Your task to perform on an android device: Open settings on Google Maps Image 0: 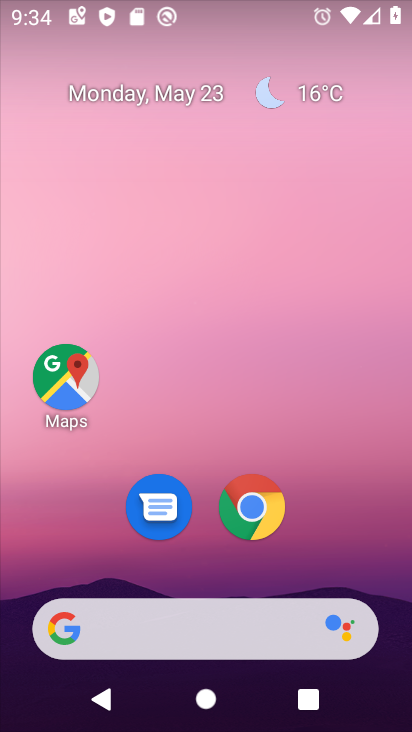
Step 0: click (70, 383)
Your task to perform on an android device: Open settings on Google Maps Image 1: 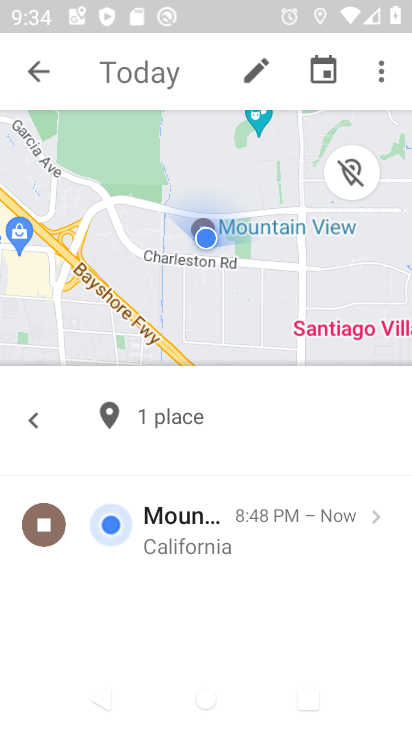
Step 1: click (39, 69)
Your task to perform on an android device: Open settings on Google Maps Image 2: 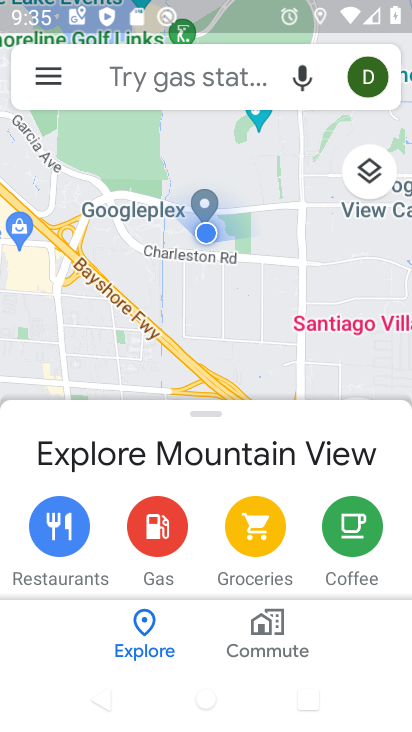
Step 2: click (39, 80)
Your task to perform on an android device: Open settings on Google Maps Image 3: 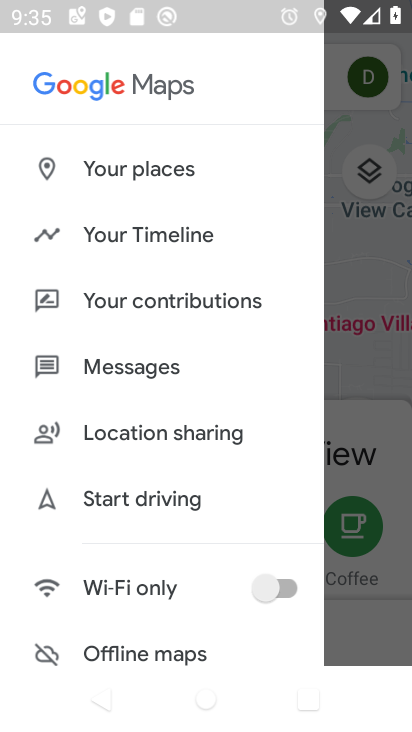
Step 3: drag from (117, 422) to (101, 221)
Your task to perform on an android device: Open settings on Google Maps Image 4: 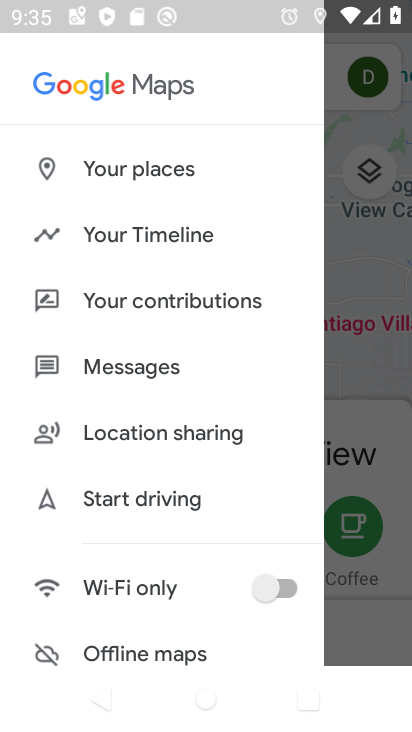
Step 4: drag from (198, 602) to (200, 89)
Your task to perform on an android device: Open settings on Google Maps Image 5: 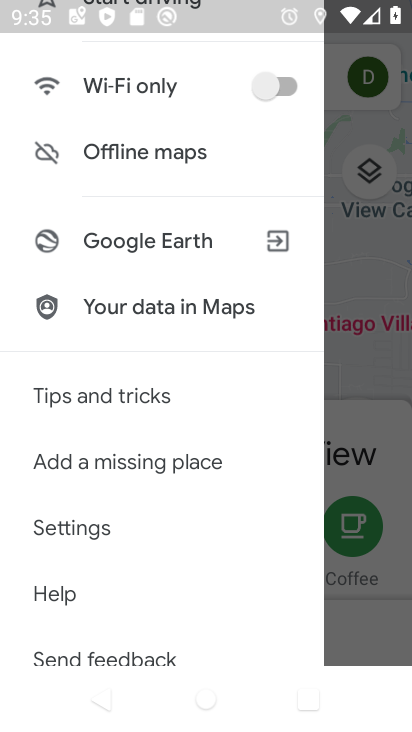
Step 5: click (82, 534)
Your task to perform on an android device: Open settings on Google Maps Image 6: 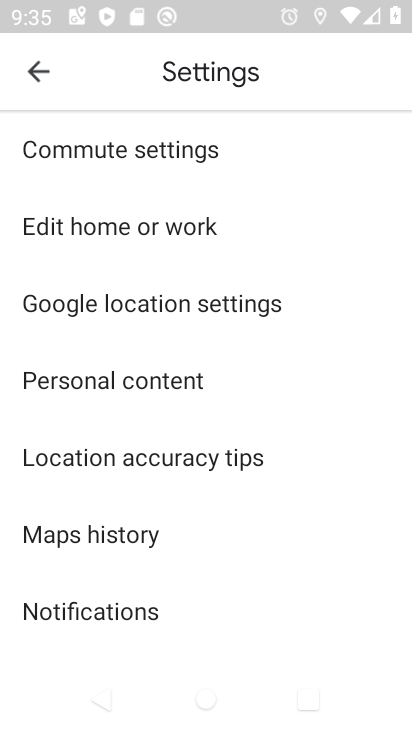
Step 6: task complete